Your task to perform on an android device: empty trash in the gmail app Image 0: 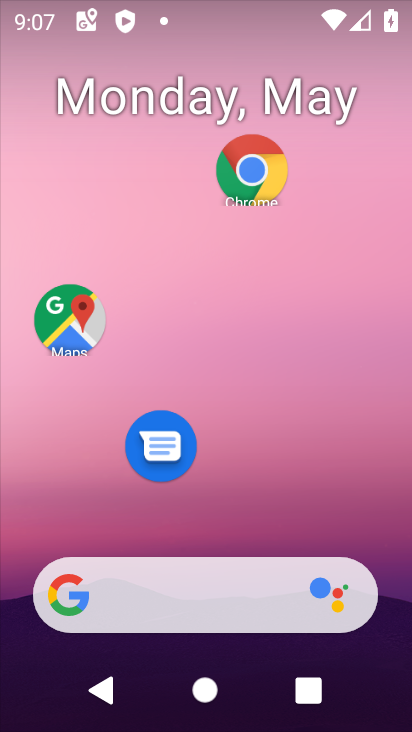
Step 0: press home button
Your task to perform on an android device: empty trash in the gmail app Image 1: 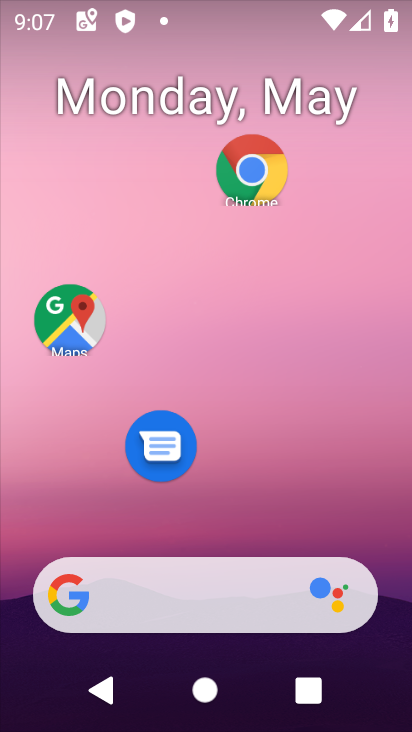
Step 1: drag from (235, 527) to (240, 47)
Your task to perform on an android device: empty trash in the gmail app Image 2: 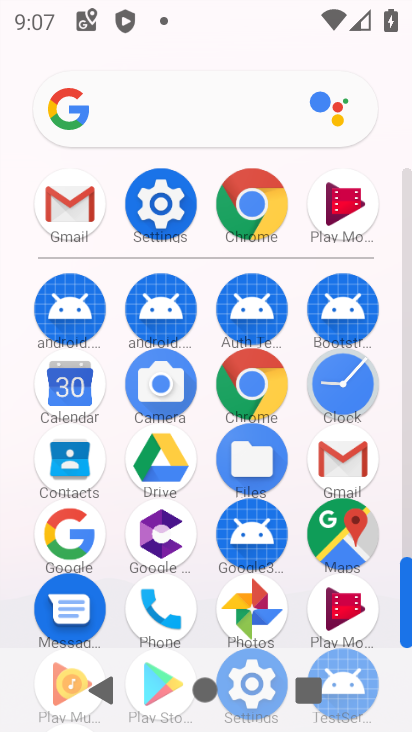
Step 2: click (335, 452)
Your task to perform on an android device: empty trash in the gmail app Image 3: 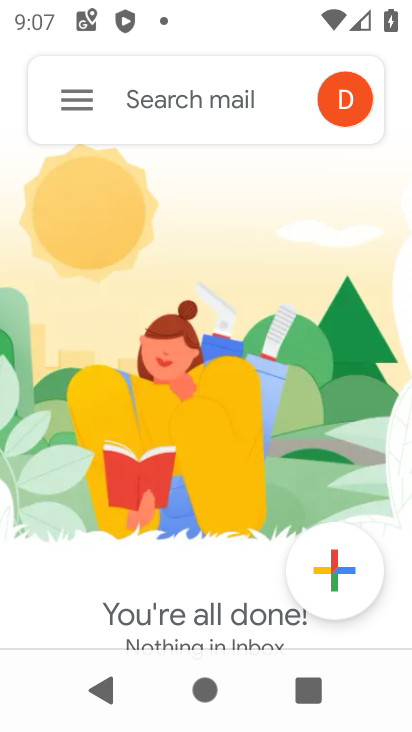
Step 3: click (76, 102)
Your task to perform on an android device: empty trash in the gmail app Image 4: 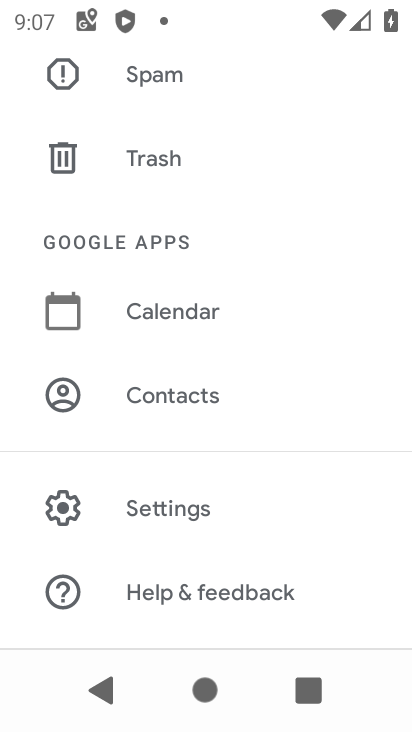
Step 4: click (110, 157)
Your task to perform on an android device: empty trash in the gmail app Image 5: 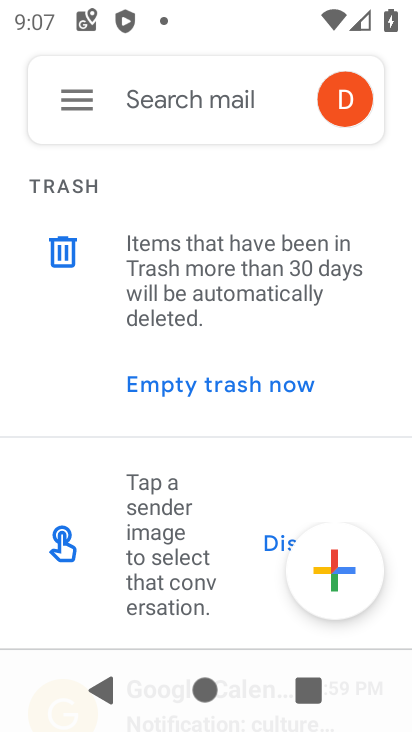
Step 5: click (229, 387)
Your task to perform on an android device: empty trash in the gmail app Image 6: 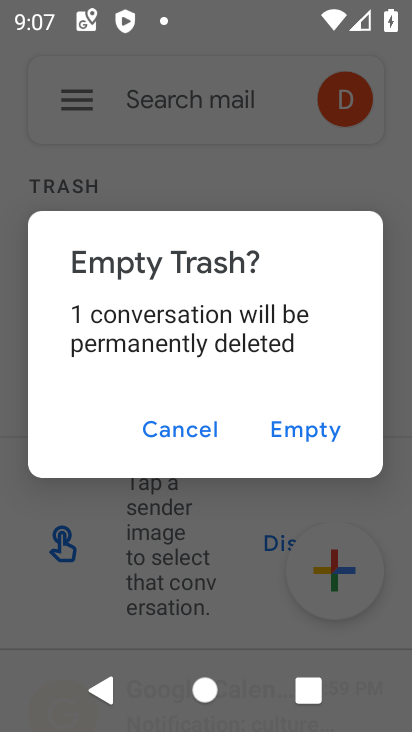
Step 6: click (311, 429)
Your task to perform on an android device: empty trash in the gmail app Image 7: 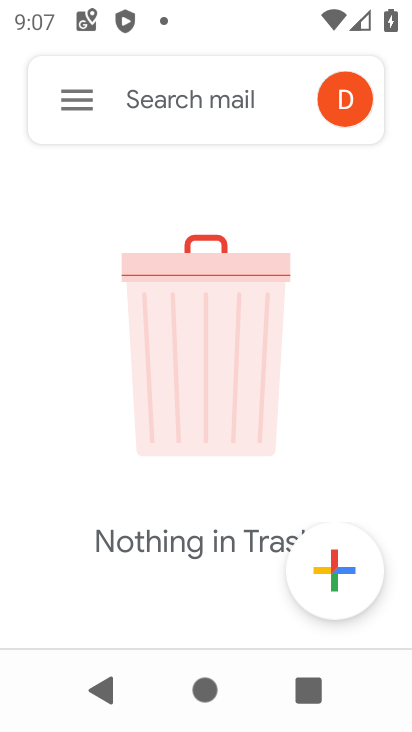
Step 7: task complete